Your task to perform on an android device: open app "Facebook" Image 0: 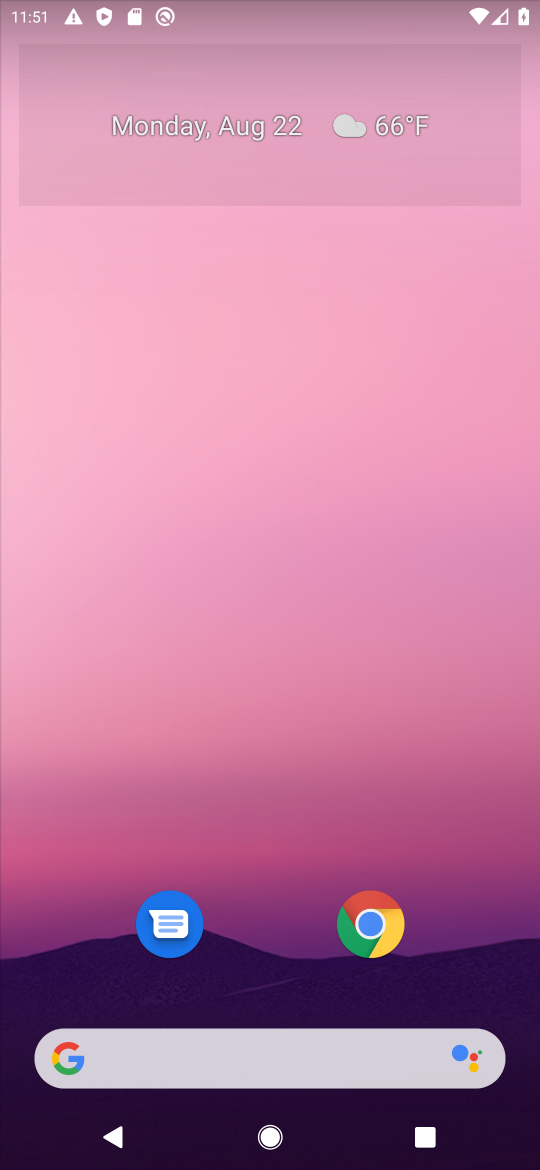
Step 0: drag from (482, 851) to (482, 91)
Your task to perform on an android device: open app "Facebook" Image 1: 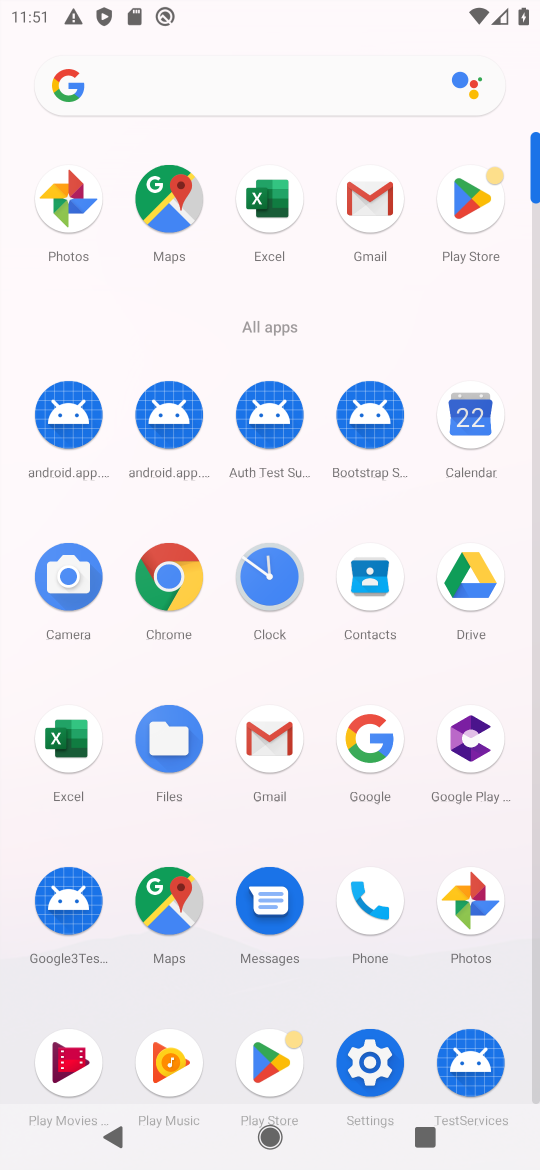
Step 1: click (469, 201)
Your task to perform on an android device: open app "Facebook" Image 2: 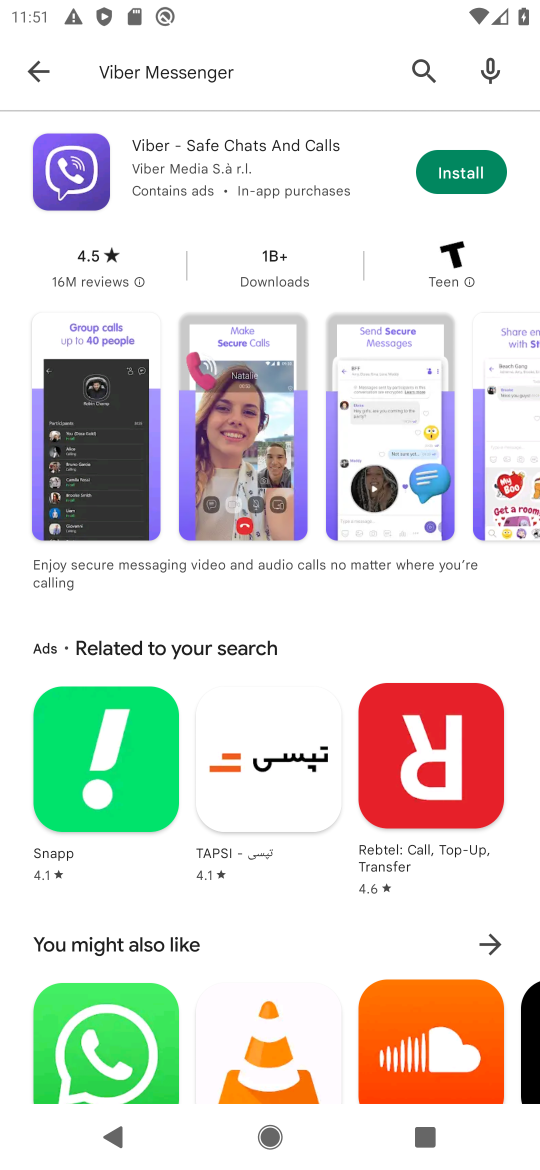
Step 2: press back button
Your task to perform on an android device: open app "Facebook" Image 3: 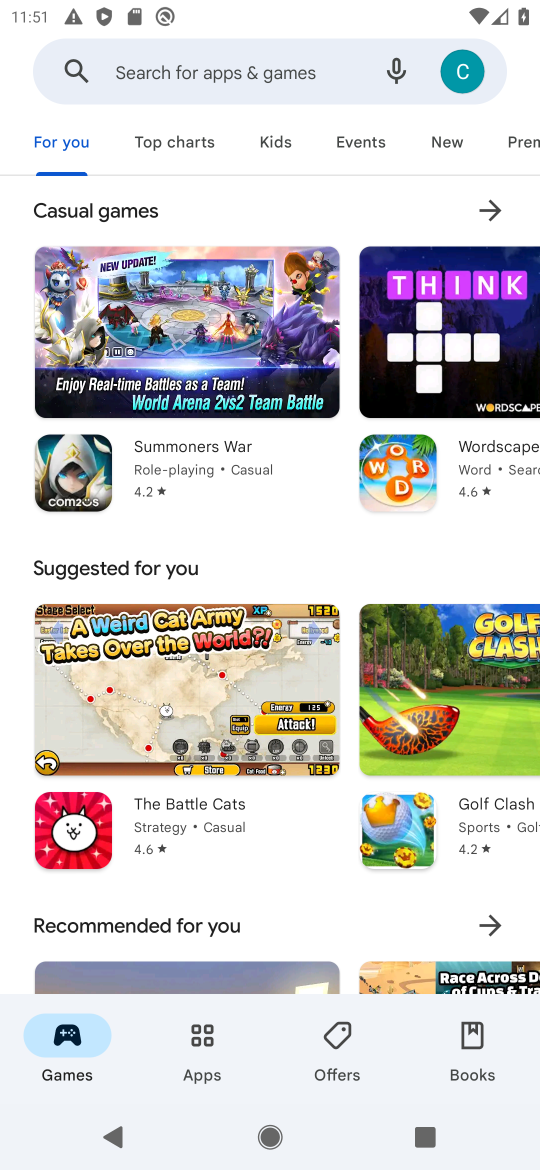
Step 3: click (231, 74)
Your task to perform on an android device: open app "Facebook" Image 4: 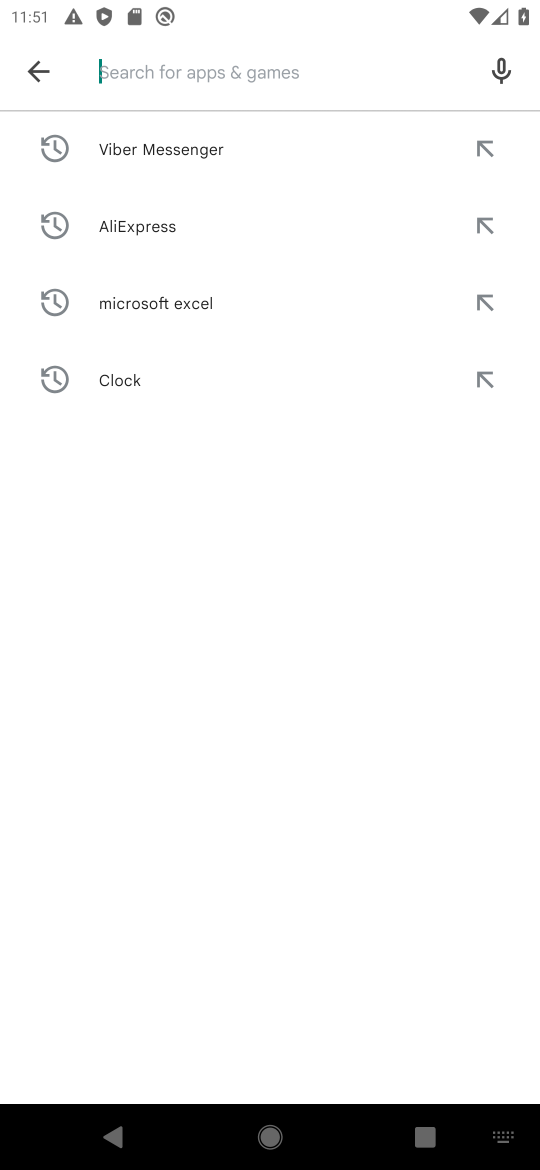
Step 4: type "Facebook"
Your task to perform on an android device: open app "Facebook" Image 5: 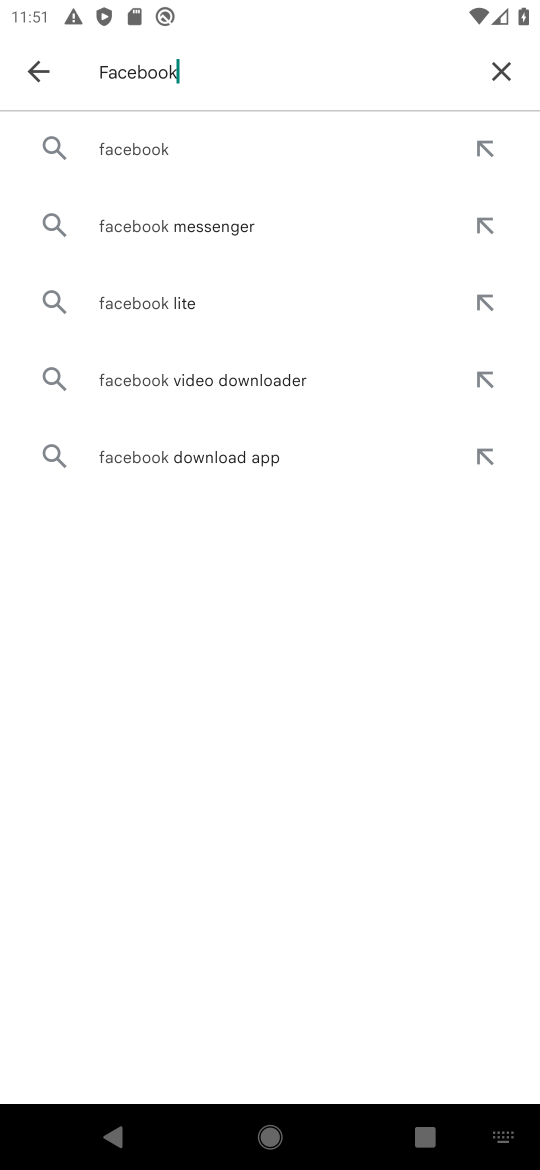
Step 5: click (161, 147)
Your task to perform on an android device: open app "Facebook" Image 6: 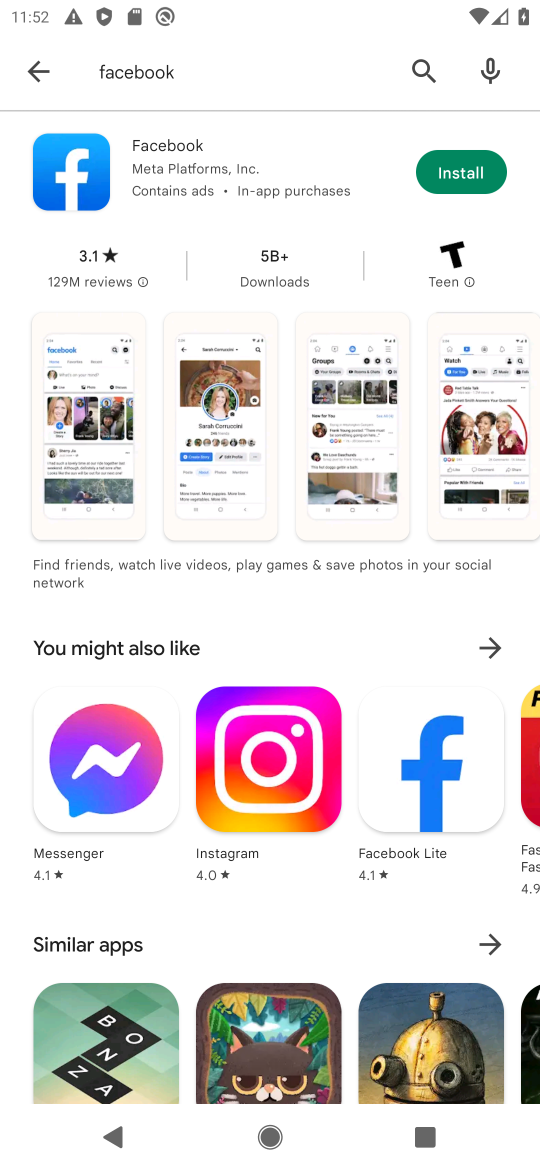
Step 6: task complete